Your task to perform on an android device: create a new album in the google photos Image 0: 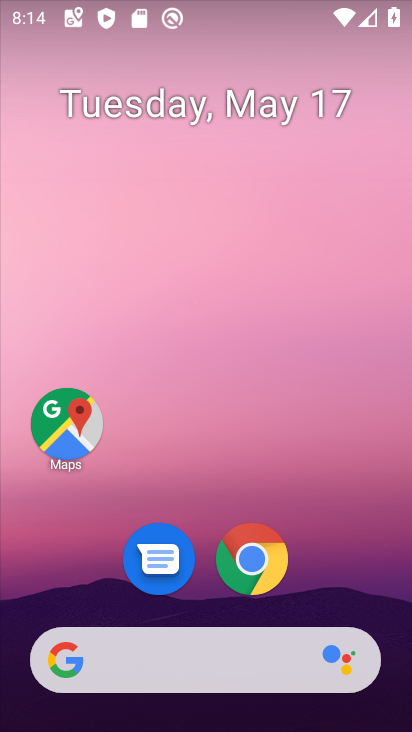
Step 0: drag from (277, 698) to (260, 252)
Your task to perform on an android device: create a new album in the google photos Image 1: 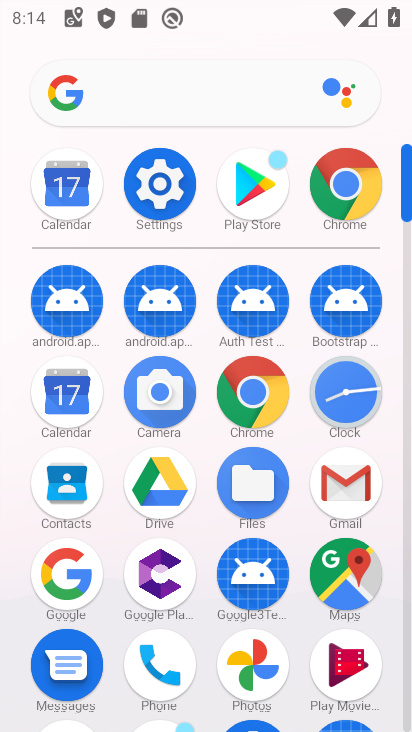
Step 1: click (257, 677)
Your task to perform on an android device: create a new album in the google photos Image 2: 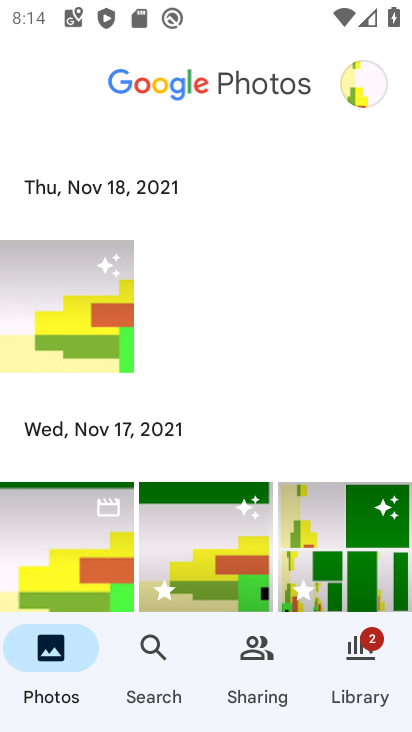
Step 2: click (89, 323)
Your task to perform on an android device: create a new album in the google photos Image 3: 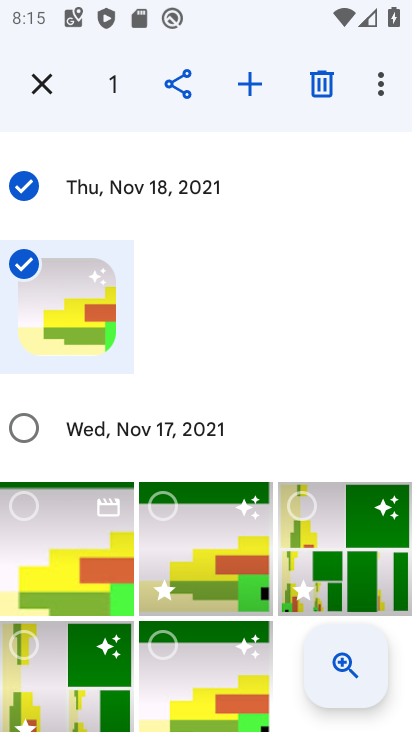
Step 3: click (248, 83)
Your task to perform on an android device: create a new album in the google photos Image 4: 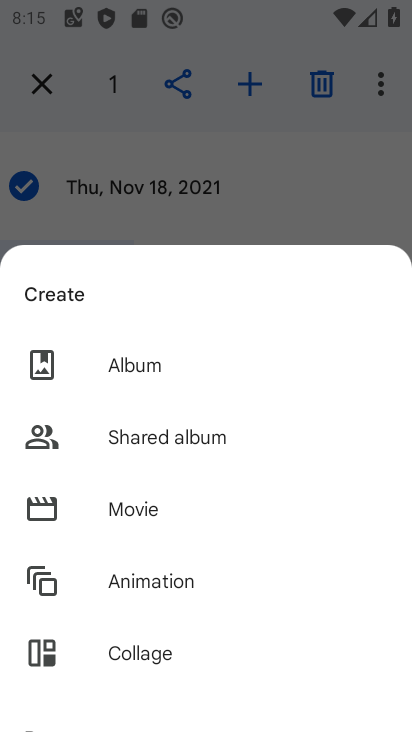
Step 4: click (114, 360)
Your task to perform on an android device: create a new album in the google photos Image 5: 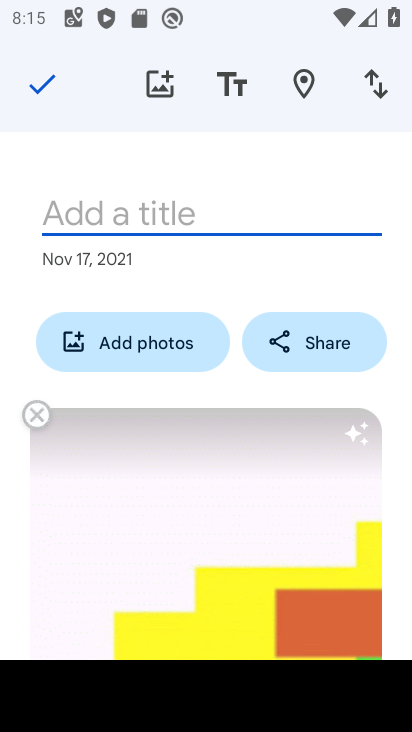
Step 5: type "hjvj"
Your task to perform on an android device: create a new album in the google photos Image 6: 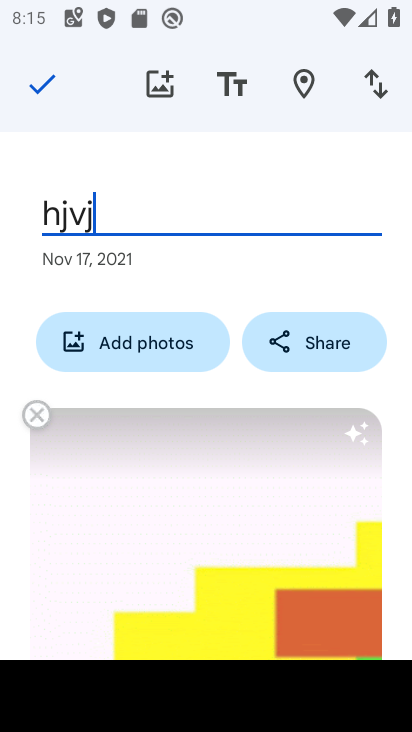
Step 6: click (39, 82)
Your task to perform on an android device: create a new album in the google photos Image 7: 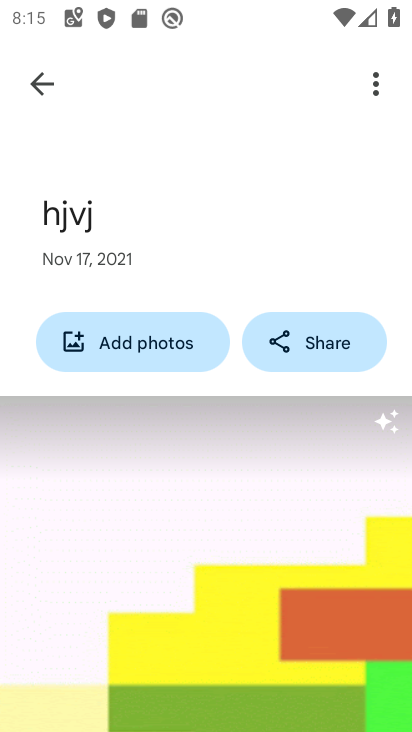
Step 7: task complete